Your task to perform on an android device: install app "Viber Messenger" Image 0: 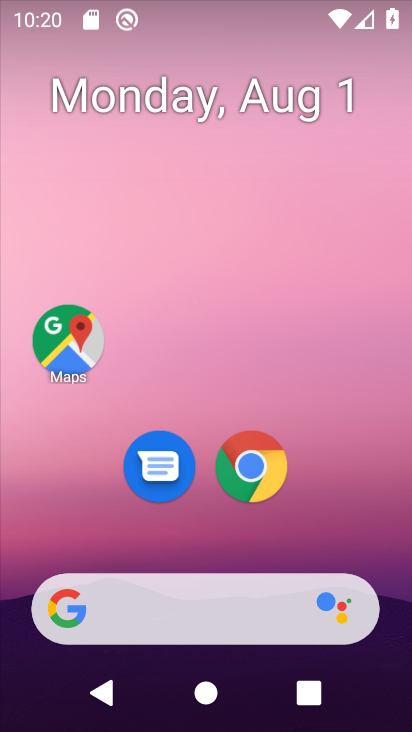
Step 0: drag from (238, 706) to (285, 315)
Your task to perform on an android device: install app "Viber Messenger" Image 1: 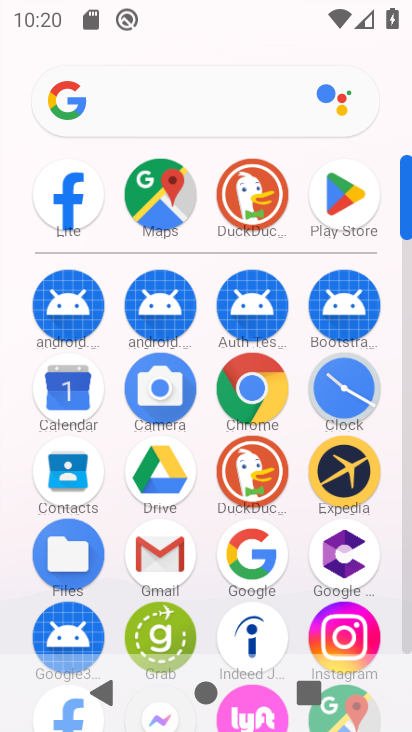
Step 1: click (335, 194)
Your task to perform on an android device: install app "Viber Messenger" Image 2: 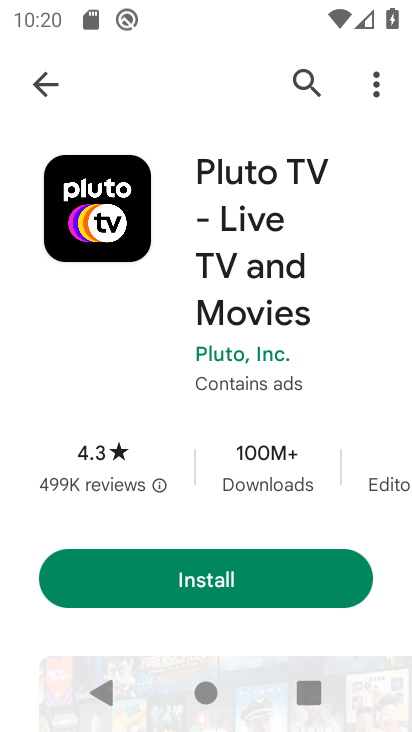
Step 2: click (308, 73)
Your task to perform on an android device: install app "Viber Messenger" Image 3: 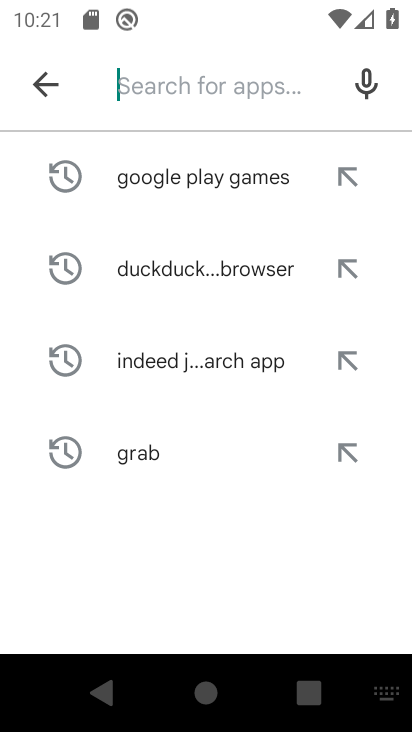
Step 3: type "Viber Messenger"
Your task to perform on an android device: install app "Viber Messenger" Image 4: 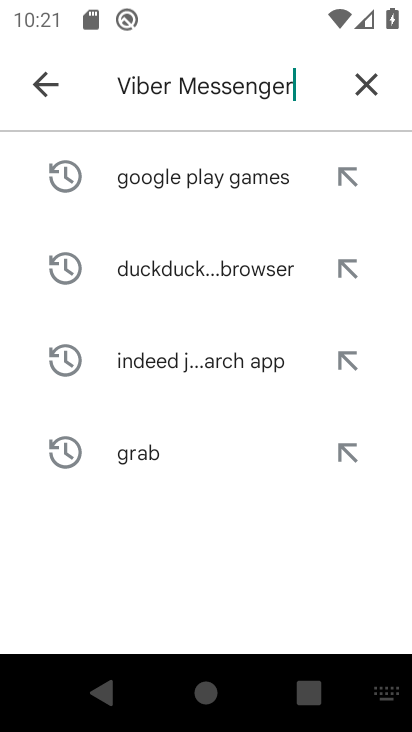
Step 4: type ""
Your task to perform on an android device: install app "Viber Messenger" Image 5: 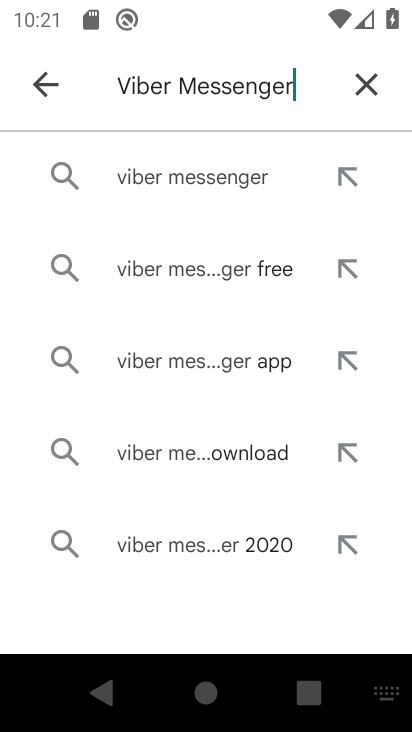
Step 5: click (219, 179)
Your task to perform on an android device: install app "Viber Messenger" Image 6: 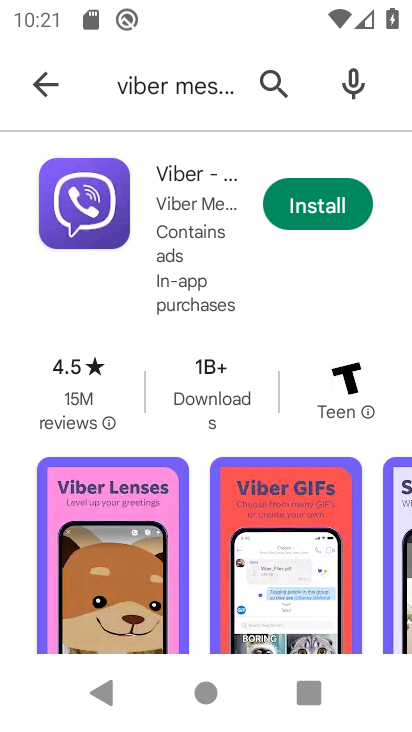
Step 6: click (309, 207)
Your task to perform on an android device: install app "Viber Messenger" Image 7: 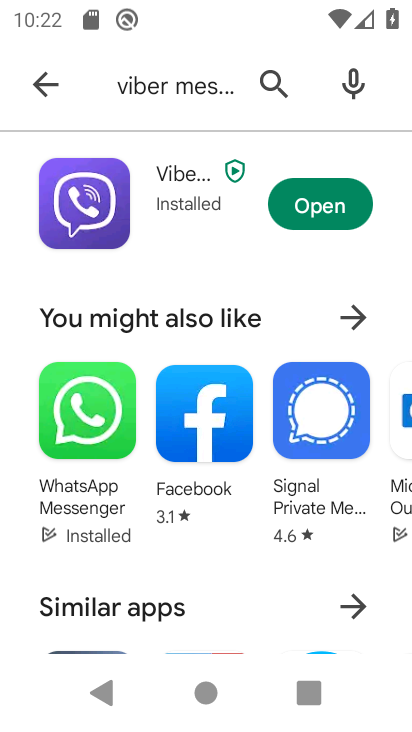
Step 7: task complete